Your task to perform on an android device: Open maps Image 0: 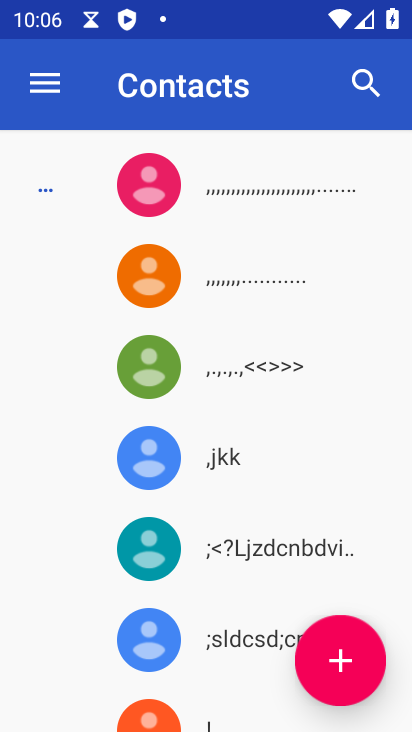
Step 0: press home button
Your task to perform on an android device: Open maps Image 1: 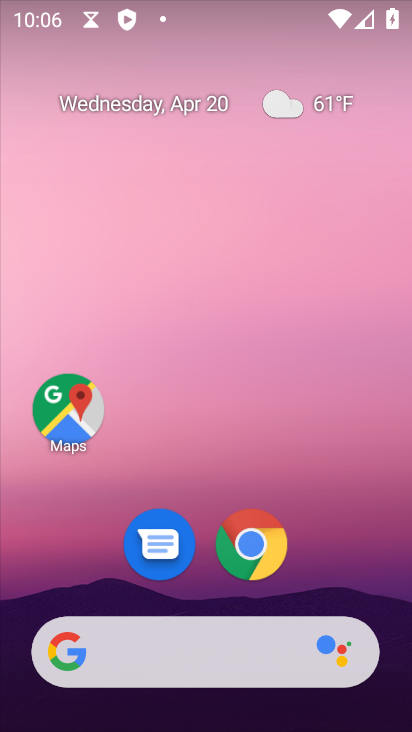
Step 1: drag from (156, 650) to (289, 234)
Your task to perform on an android device: Open maps Image 2: 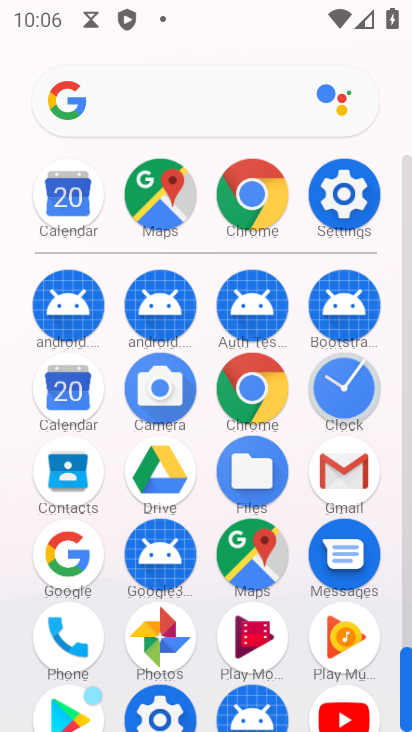
Step 2: click (137, 202)
Your task to perform on an android device: Open maps Image 3: 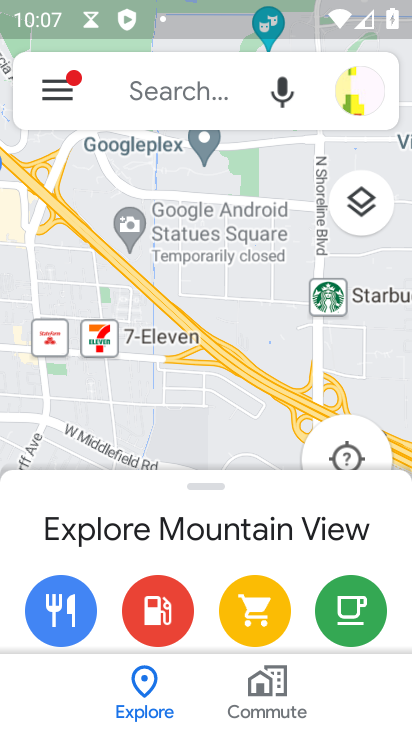
Step 3: task complete